Your task to perform on an android device: turn on translation in the chrome app Image 0: 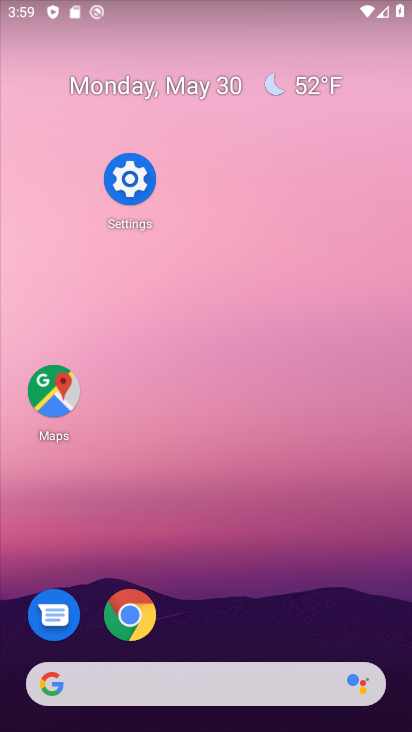
Step 0: click (132, 612)
Your task to perform on an android device: turn on translation in the chrome app Image 1: 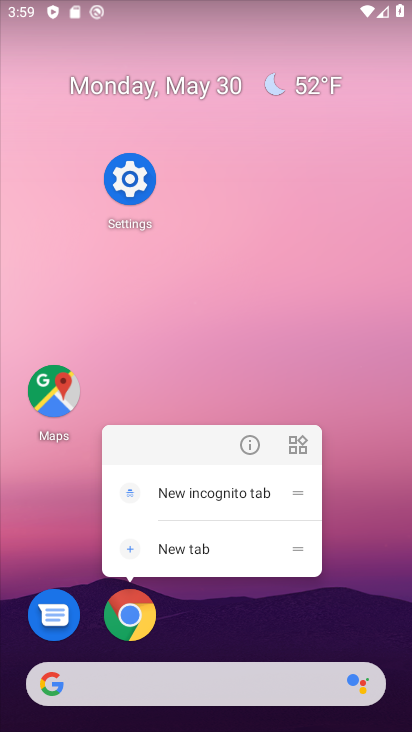
Step 1: click (139, 618)
Your task to perform on an android device: turn on translation in the chrome app Image 2: 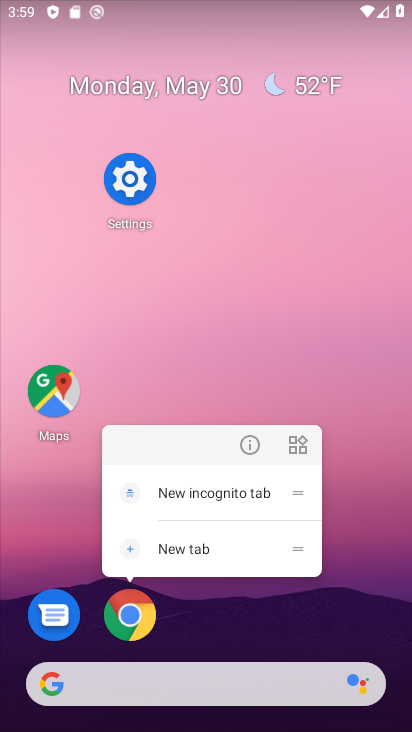
Step 2: click (141, 618)
Your task to perform on an android device: turn on translation in the chrome app Image 3: 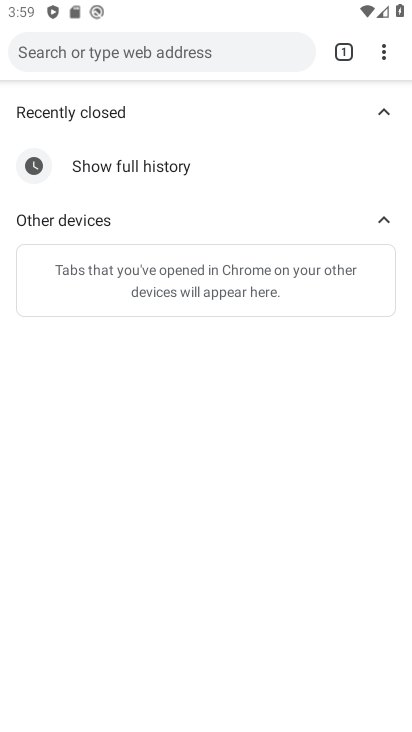
Step 3: click (395, 54)
Your task to perform on an android device: turn on translation in the chrome app Image 4: 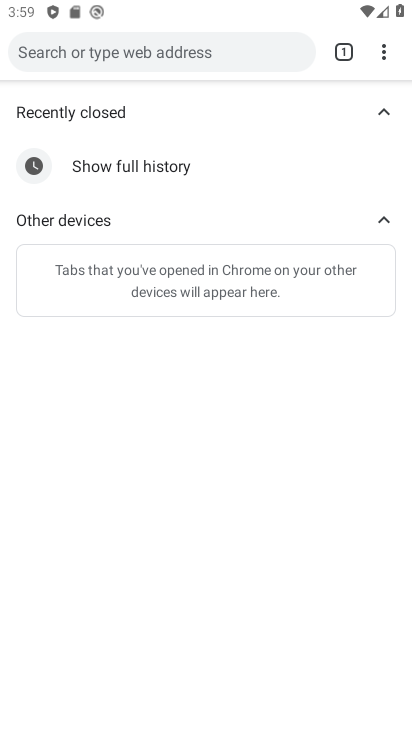
Step 4: click (393, 55)
Your task to perform on an android device: turn on translation in the chrome app Image 5: 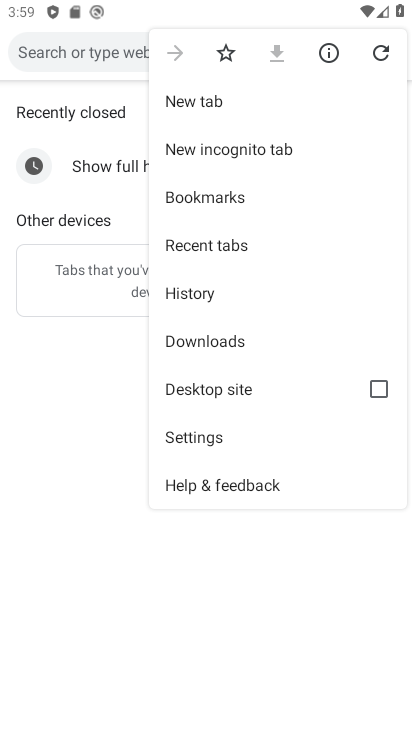
Step 5: click (192, 442)
Your task to perform on an android device: turn on translation in the chrome app Image 6: 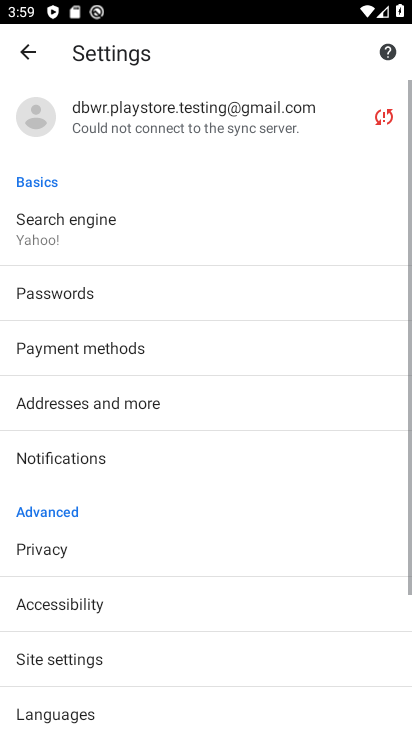
Step 6: drag from (121, 659) to (119, 270)
Your task to perform on an android device: turn on translation in the chrome app Image 7: 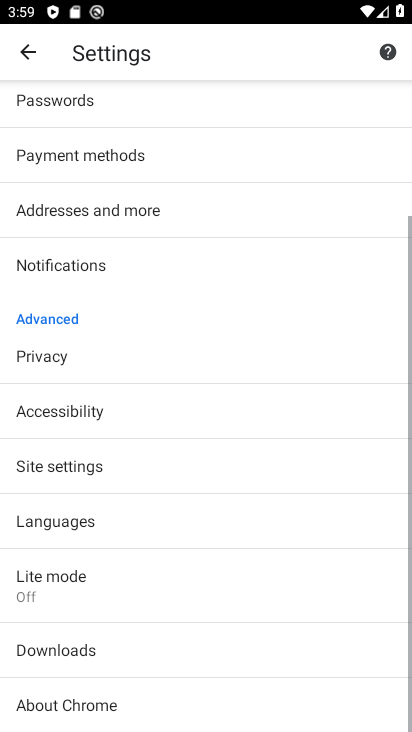
Step 7: click (99, 515)
Your task to perform on an android device: turn on translation in the chrome app Image 8: 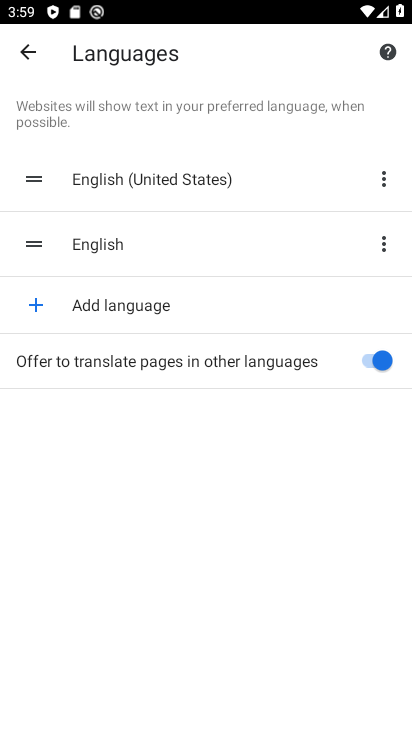
Step 8: task complete